Your task to perform on an android device: Open privacy settings Image 0: 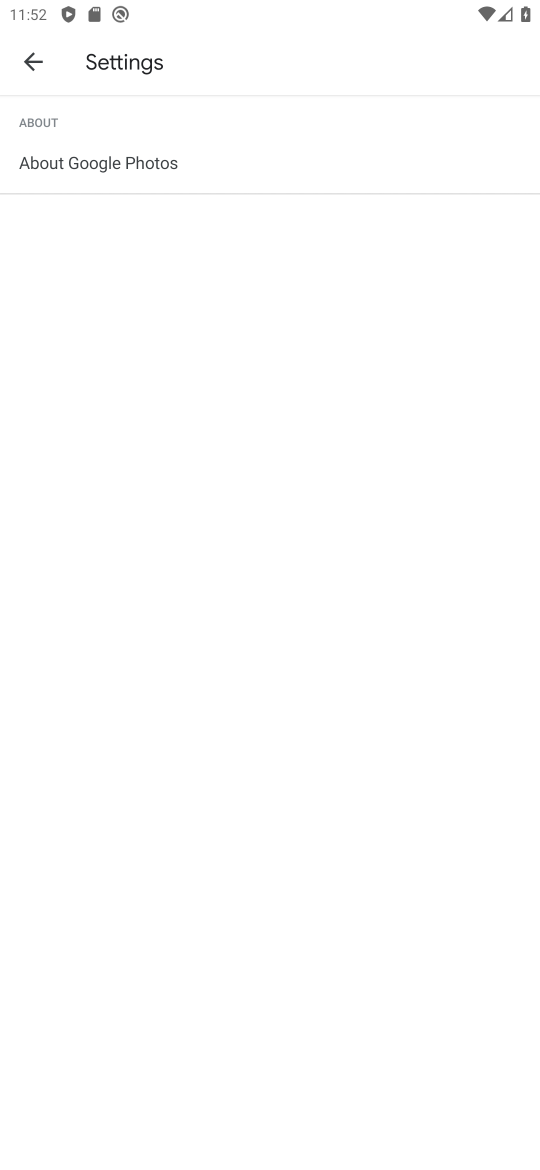
Step 0: click (36, 71)
Your task to perform on an android device: Open privacy settings Image 1: 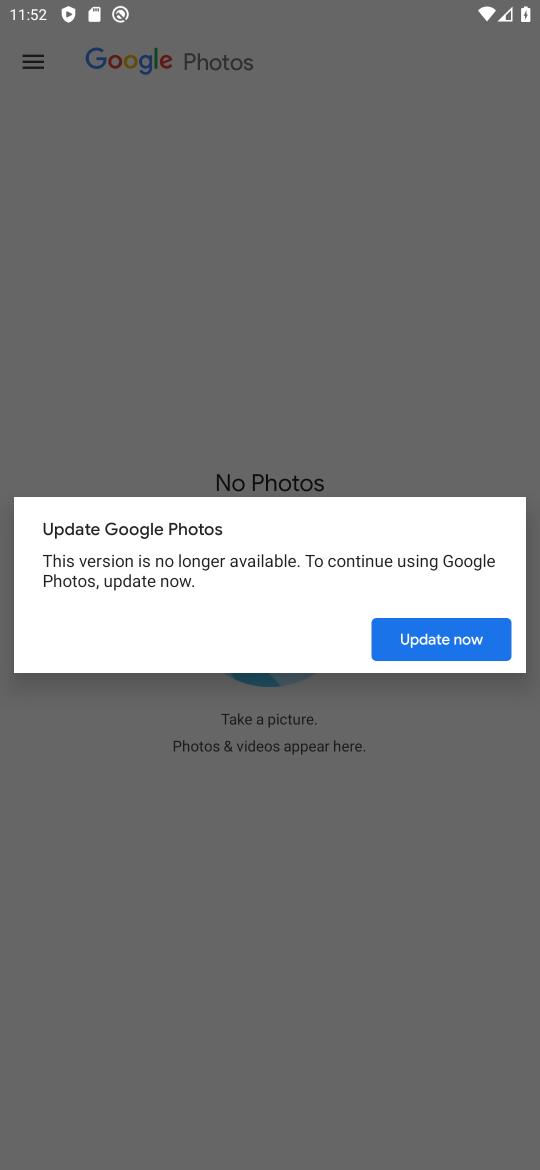
Step 1: press home button
Your task to perform on an android device: Open privacy settings Image 2: 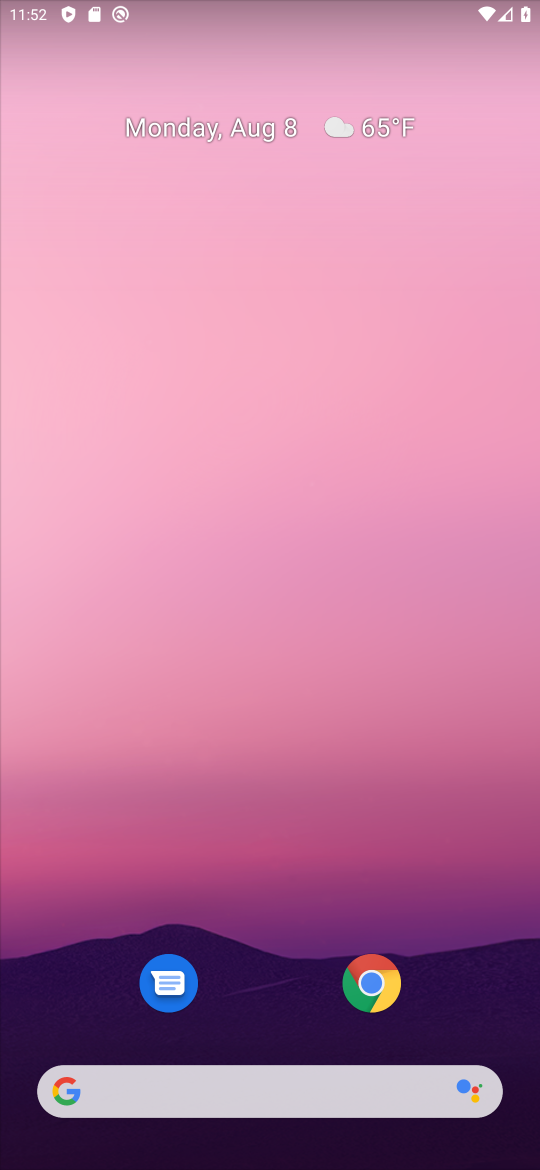
Step 2: drag from (237, 1056) to (203, 224)
Your task to perform on an android device: Open privacy settings Image 3: 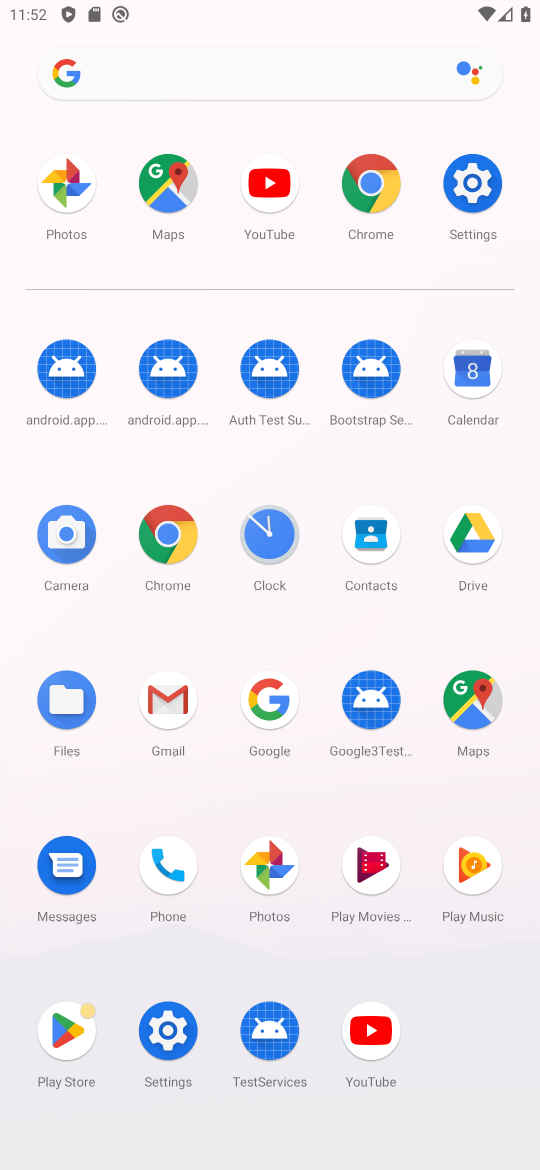
Step 3: click (481, 232)
Your task to perform on an android device: Open privacy settings Image 4: 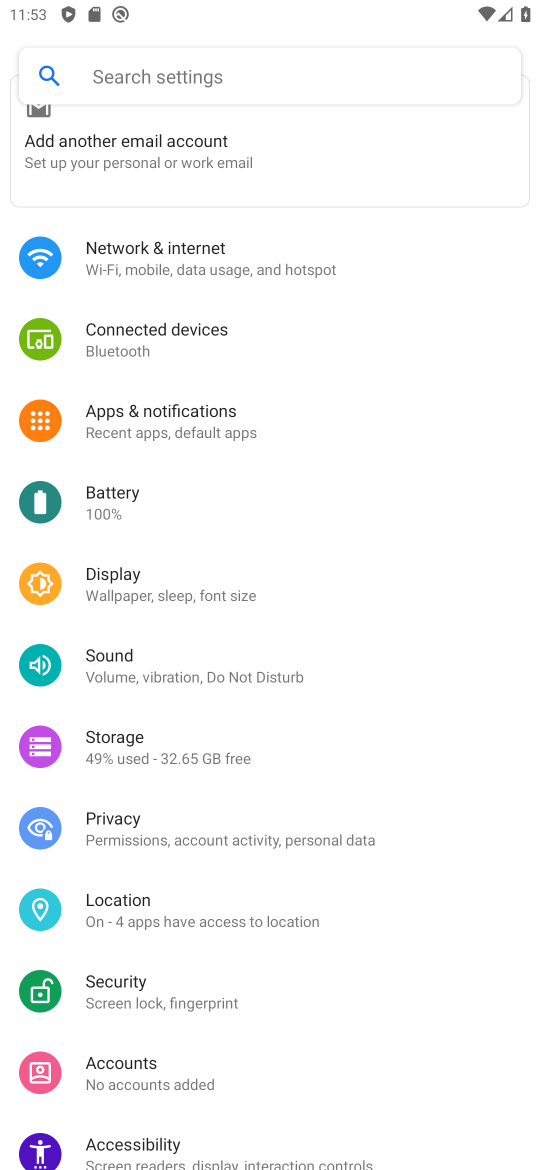
Step 4: click (283, 842)
Your task to perform on an android device: Open privacy settings Image 5: 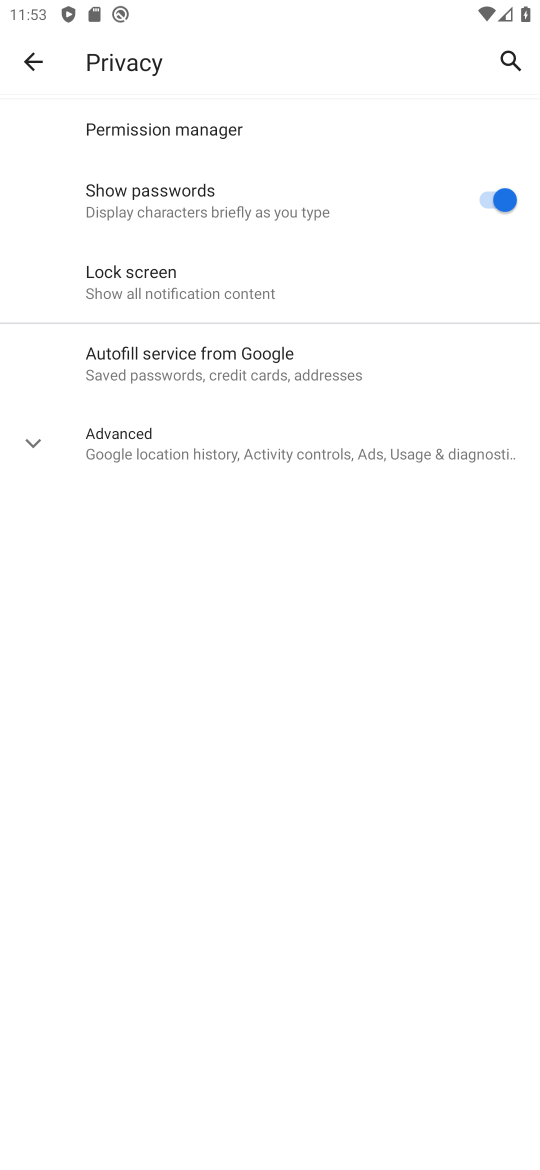
Step 5: task complete